Your task to perform on an android device: Is it going to rain tomorrow? Image 0: 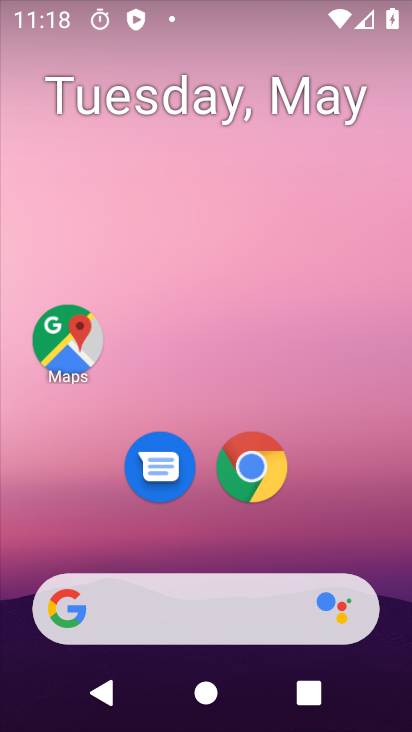
Step 0: drag from (336, 483) to (222, 41)
Your task to perform on an android device: Is it going to rain tomorrow? Image 1: 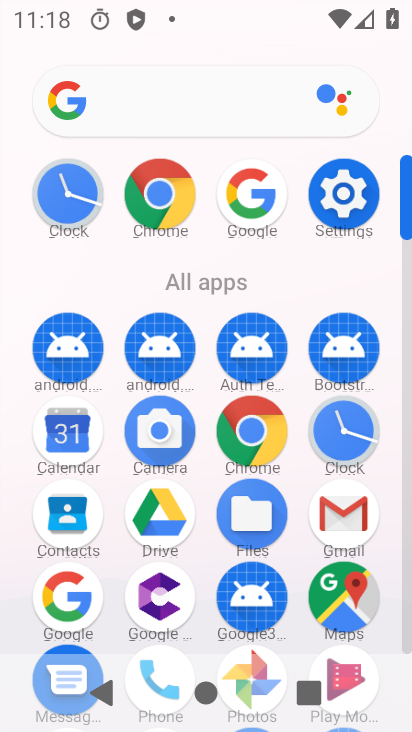
Step 1: drag from (17, 496) to (9, 228)
Your task to perform on an android device: Is it going to rain tomorrow? Image 2: 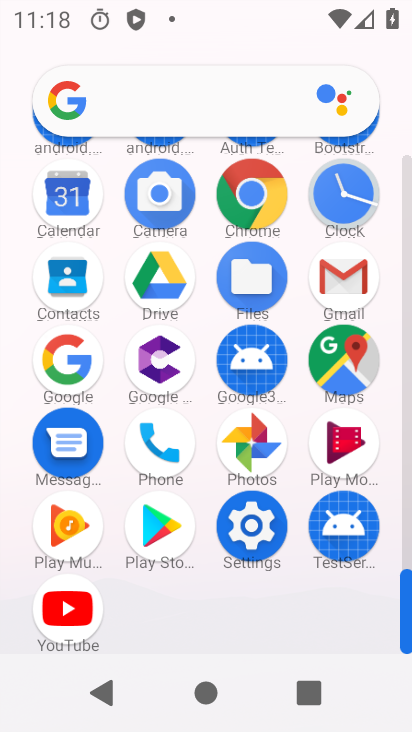
Step 2: click (249, 189)
Your task to perform on an android device: Is it going to rain tomorrow? Image 3: 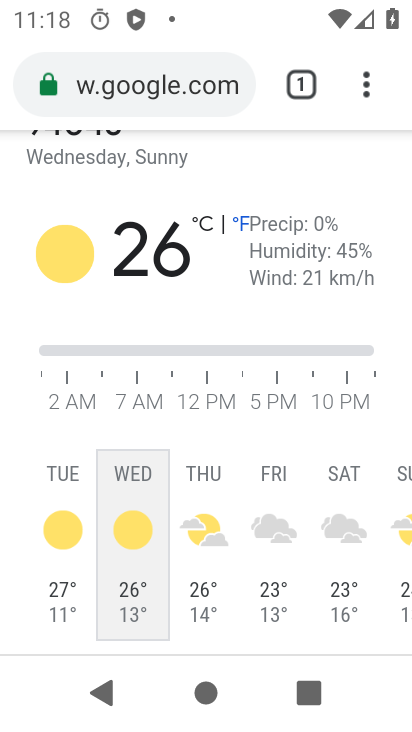
Step 3: click (147, 67)
Your task to perform on an android device: Is it going to rain tomorrow? Image 4: 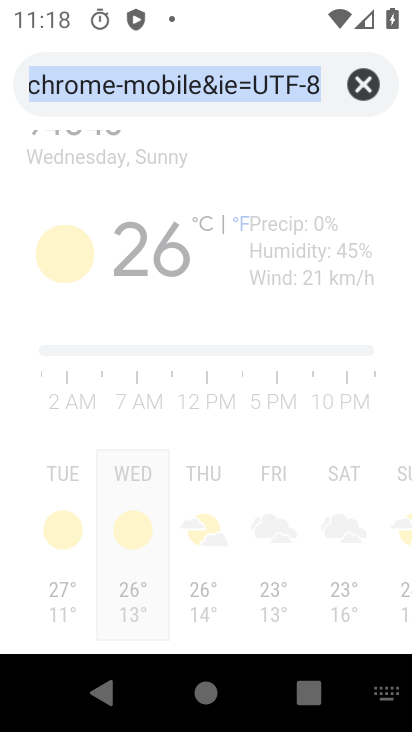
Step 4: click (364, 80)
Your task to perform on an android device: Is it going to rain tomorrow? Image 5: 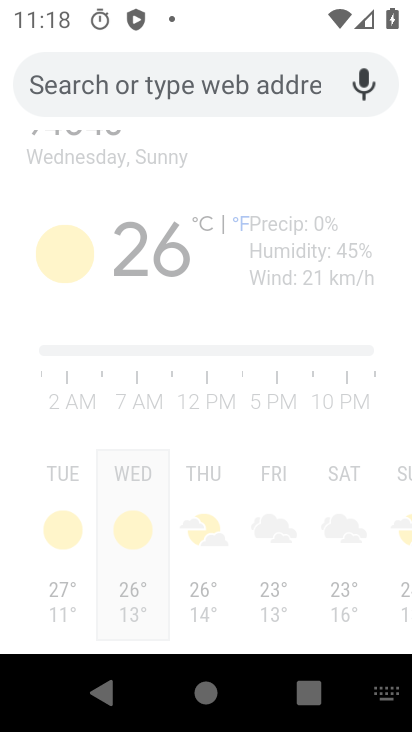
Step 5: type "Is it going to rain tomorrow?"
Your task to perform on an android device: Is it going to rain tomorrow? Image 6: 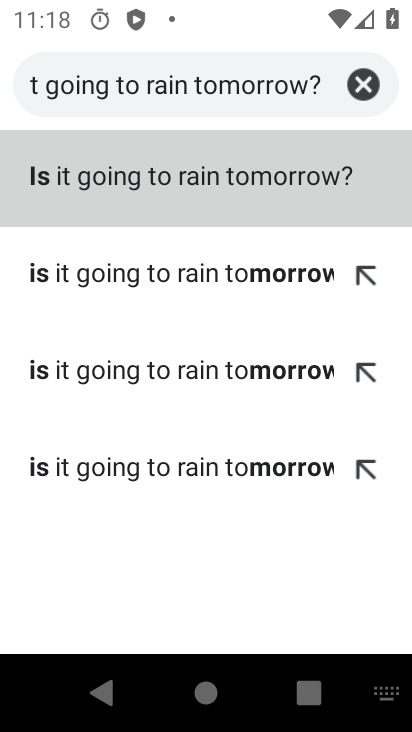
Step 6: click (327, 182)
Your task to perform on an android device: Is it going to rain tomorrow? Image 7: 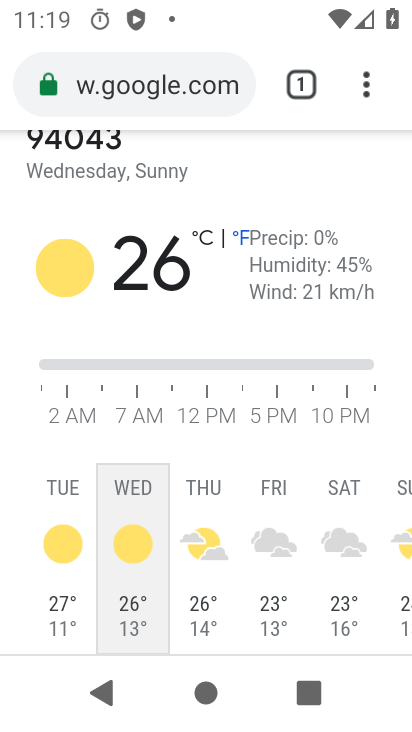
Step 7: task complete